Your task to perform on an android device: Open calendar and show me the fourth week of next month Image 0: 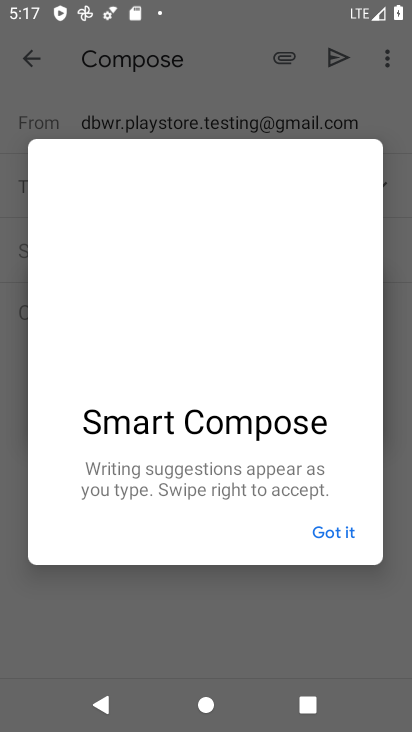
Step 0: press back button
Your task to perform on an android device: Open calendar and show me the fourth week of next month Image 1: 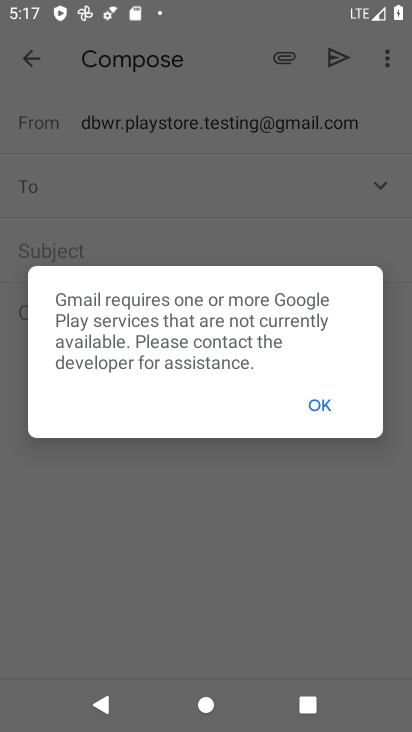
Step 1: press home button
Your task to perform on an android device: Open calendar and show me the fourth week of next month Image 2: 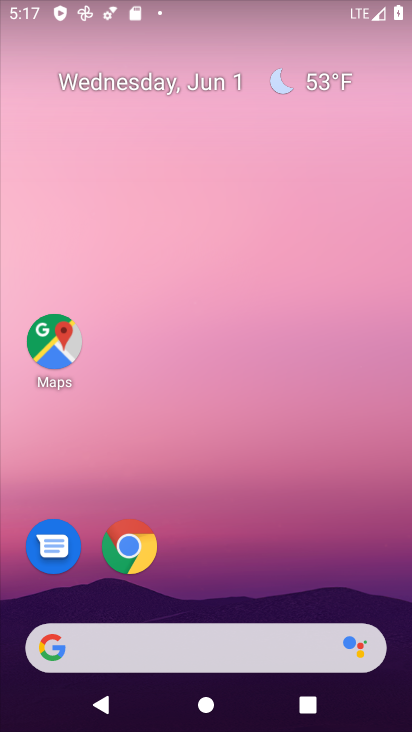
Step 2: drag from (223, 505) to (204, 0)
Your task to perform on an android device: Open calendar and show me the fourth week of next month Image 3: 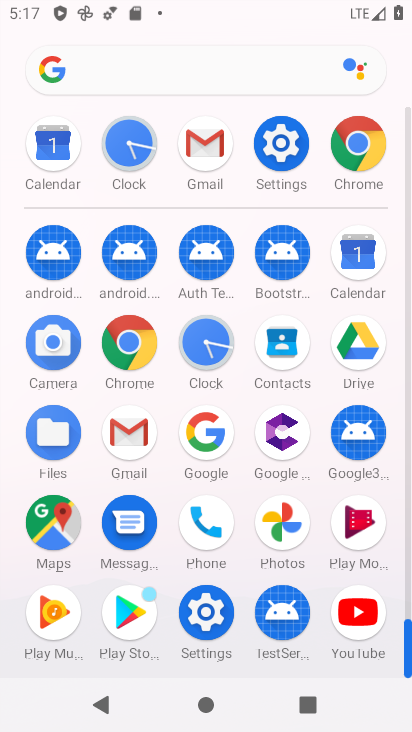
Step 3: click (353, 251)
Your task to perform on an android device: Open calendar and show me the fourth week of next month Image 4: 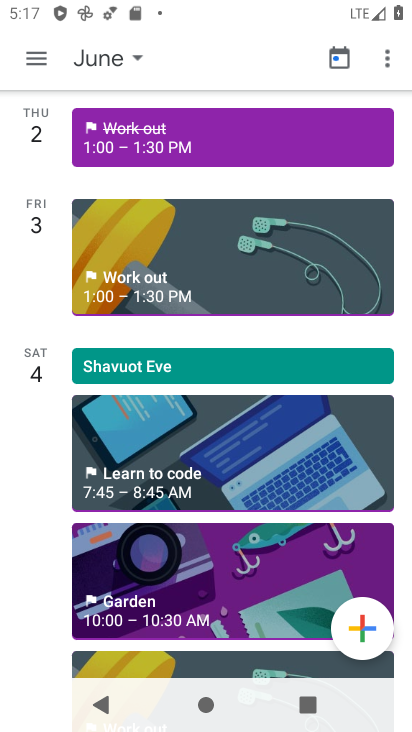
Step 4: click (39, 58)
Your task to perform on an android device: Open calendar and show me the fourth week of next month Image 5: 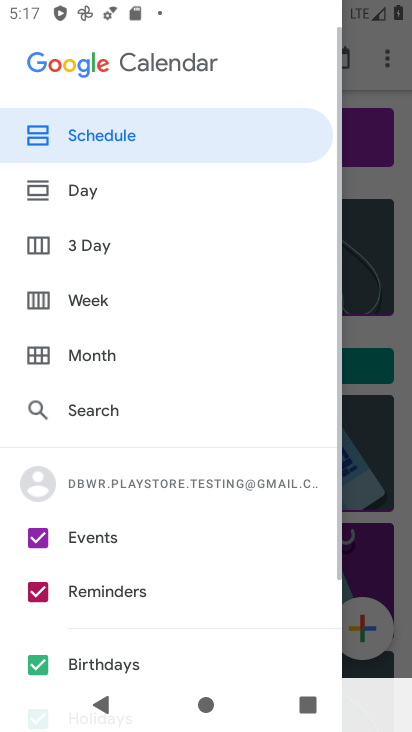
Step 5: click (111, 290)
Your task to perform on an android device: Open calendar and show me the fourth week of next month Image 6: 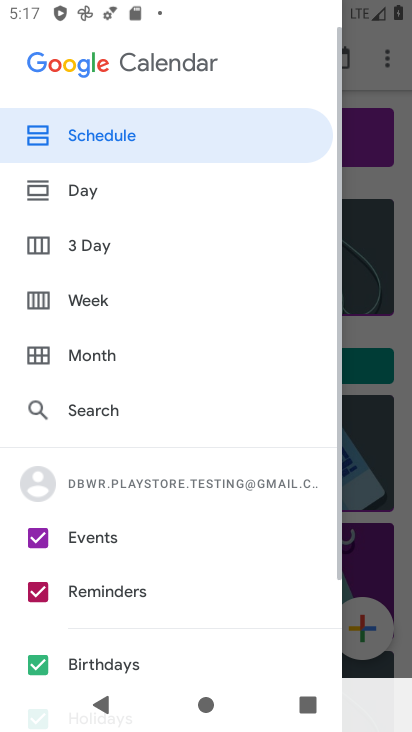
Step 6: click (119, 347)
Your task to perform on an android device: Open calendar and show me the fourth week of next month Image 7: 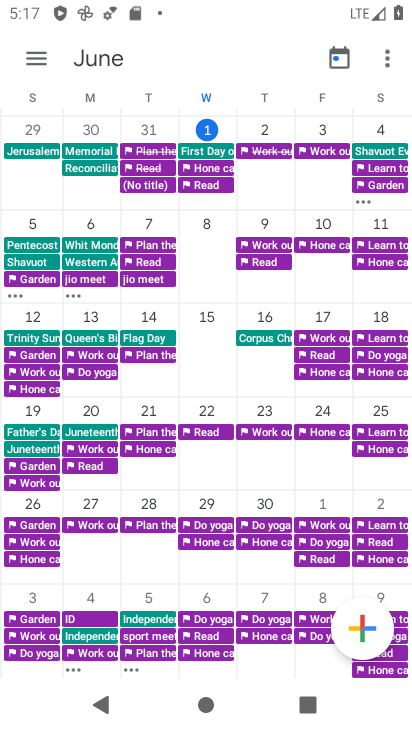
Step 7: drag from (399, 317) to (3, 347)
Your task to perform on an android device: Open calendar and show me the fourth week of next month Image 8: 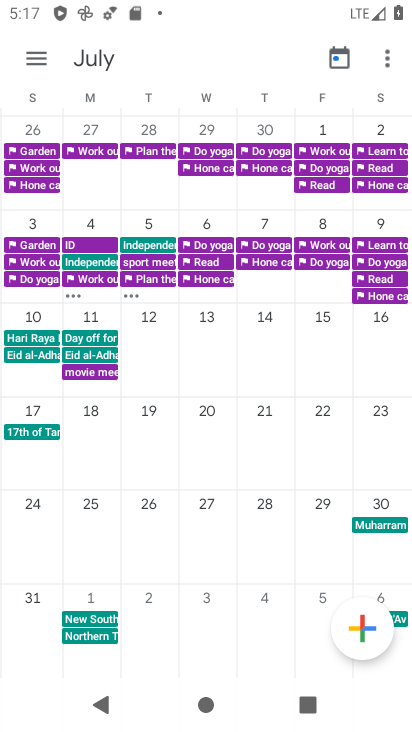
Step 8: click (341, 55)
Your task to perform on an android device: Open calendar and show me the fourth week of next month Image 9: 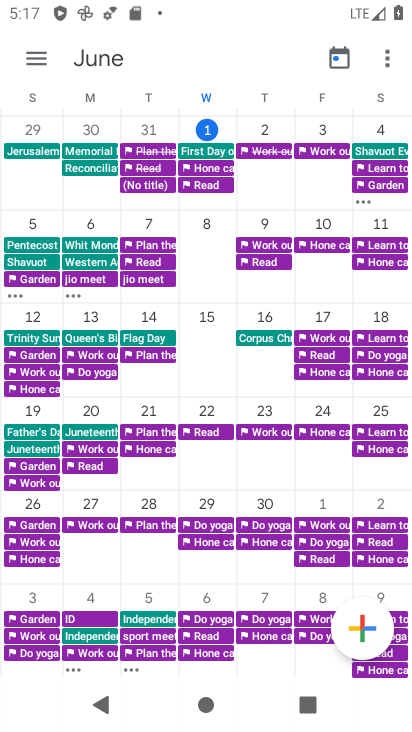
Step 9: drag from (395, 296) to (0, 313)
Your task to perform on an android device: Open calendar and show me the fourth week of next month Image 10: 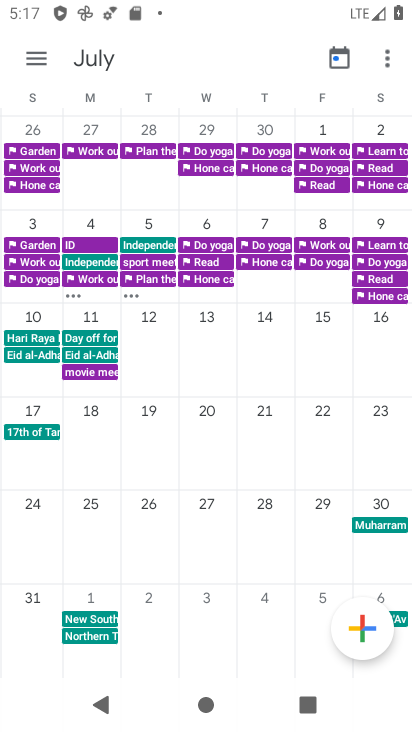
Step 10: click (32, 412)
Your task to perform on an android device: Open calendar and show me the fourth week of next month Image 11: 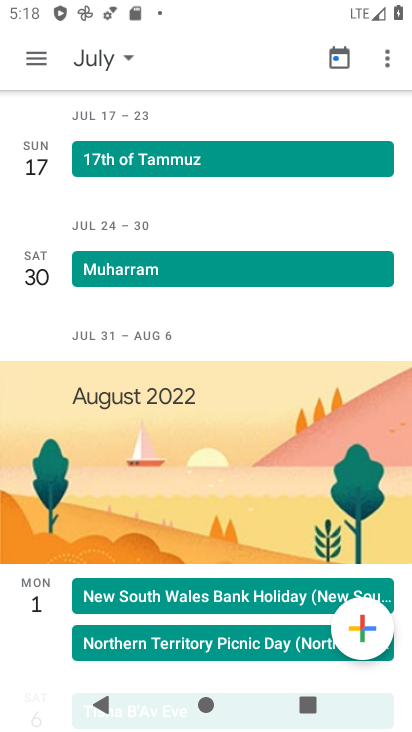
Step 11: task complete